Your task to perform on an android device: change the clock display to analog Image 0: 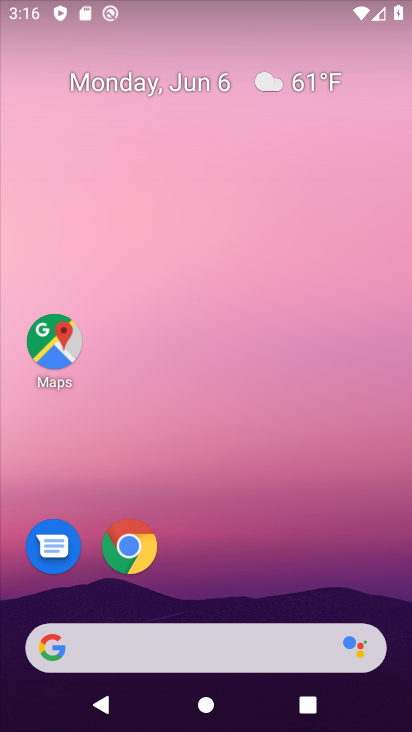
Step 0: press home button
Your task to perform on an android device: change the clock display to analog Image 1: 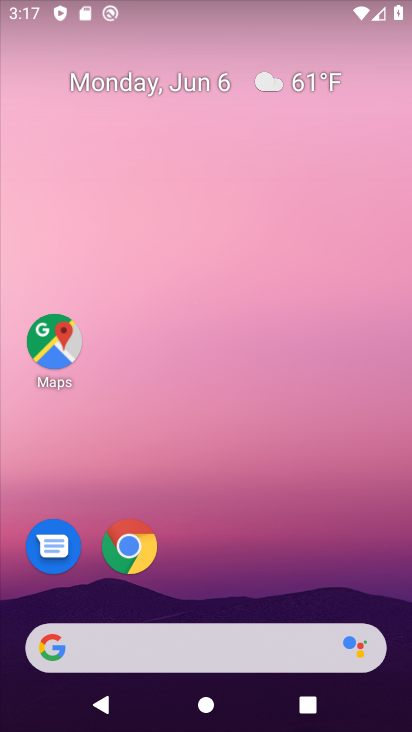
Step 1: drag from (291, 554) to (304, 239)
Your task to perform on an android device: change the clock display to analog Image 2: 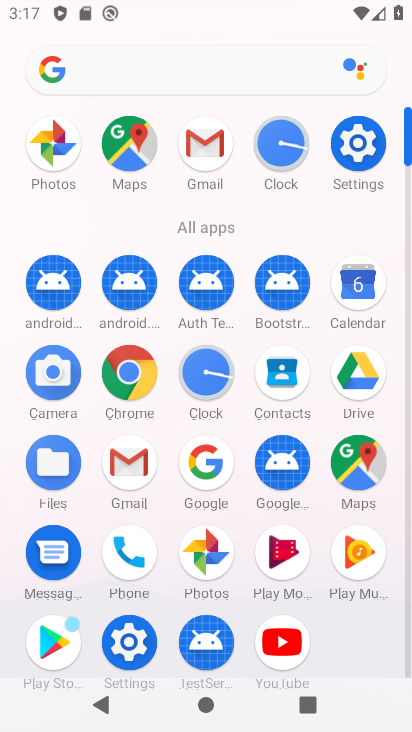
Step 2: click (282, 149)
Your task to perform on an android device: change the clock display to analog Image 3: 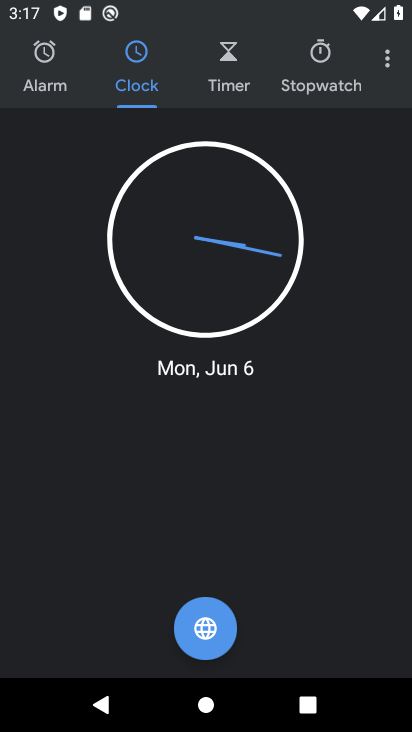
Step 3: click (383, 60)
Your task to perform on an android device: change the clock display to analog Image 4: 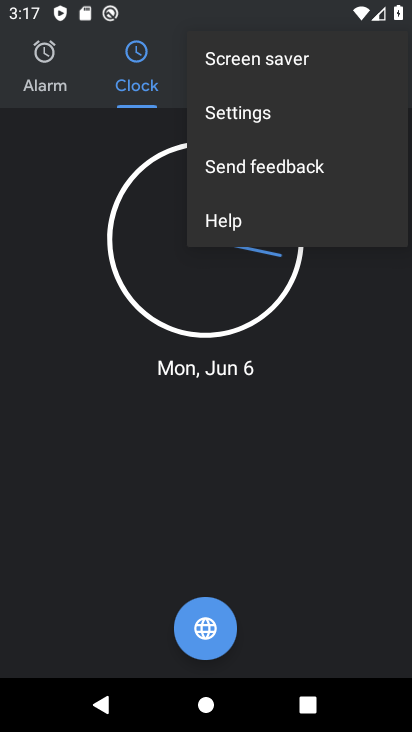
Step 4: click (237, 107)
Your task to perform on an android device: change the clock display to analog Image 5: 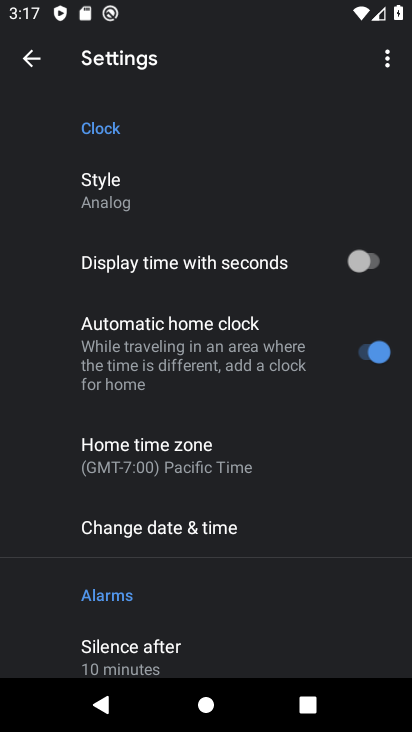
Step 5: click (171, 187)
Your task to perform on an android device: change the clock display to analog Image 6: 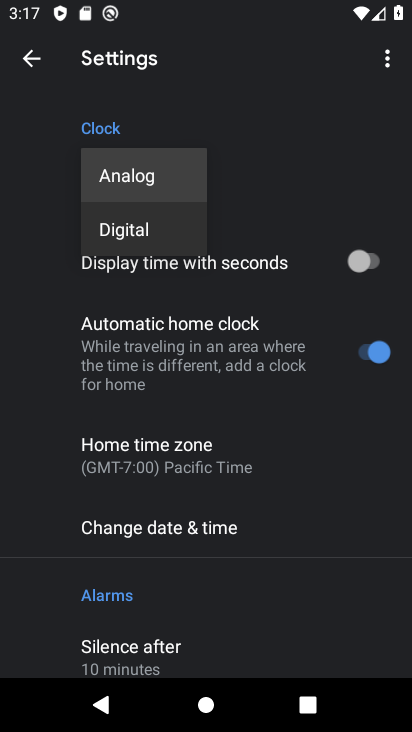
Step 6: task complete